Your task to perform on an android device: View the shopping cart on amazon. Add "apple airpods" to the cart on amazon Image 0: 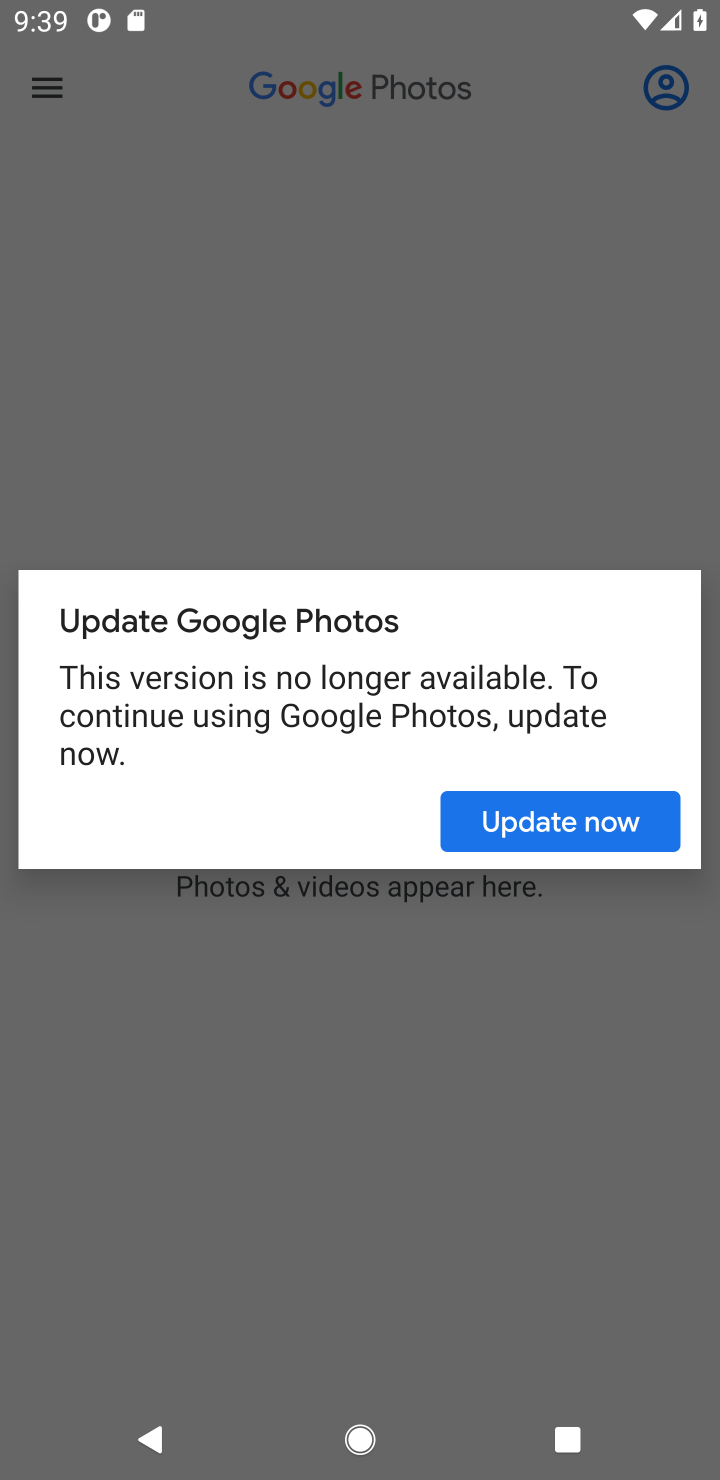
Step 0: press home button
Your task to perform on an android device: View the shopping cart on amazon. Add "apple airpods" to the cart on amazon Image 1: 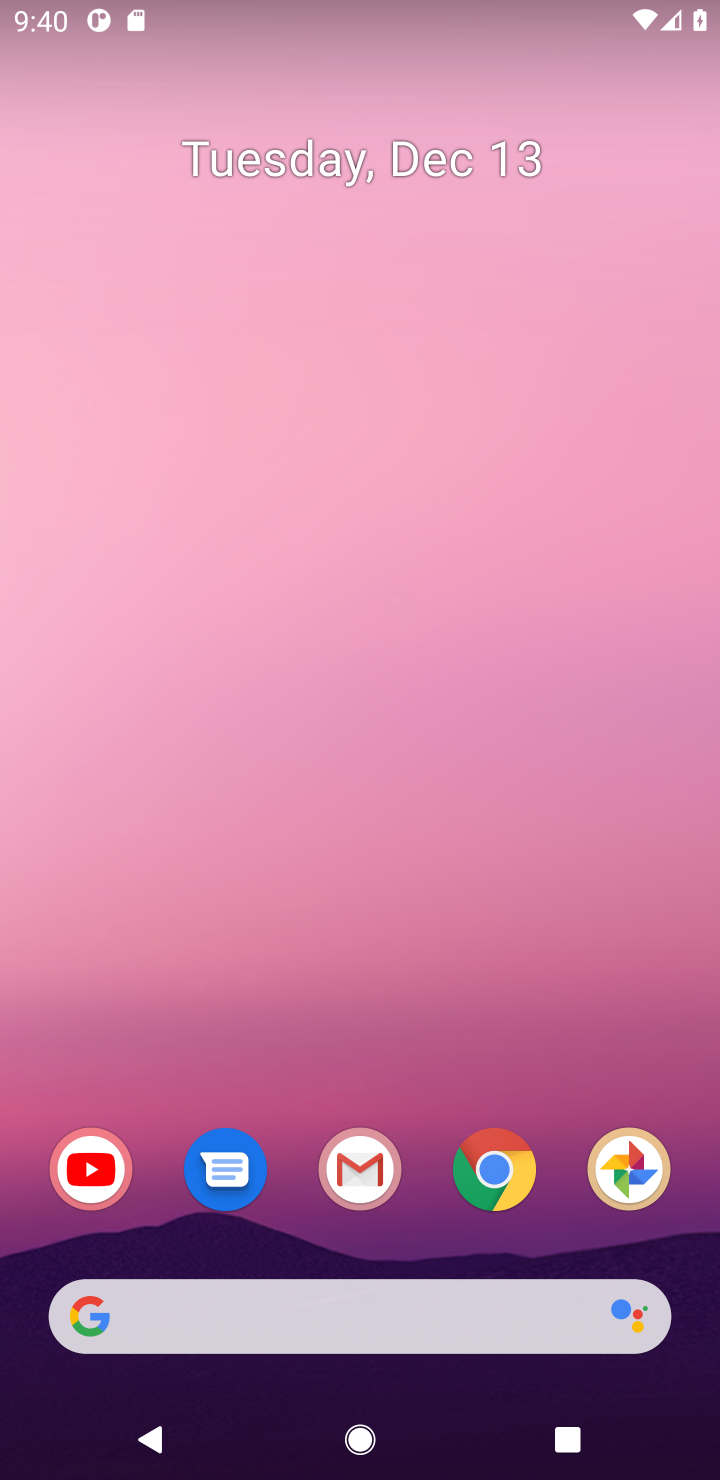
Step 1: click (508, 1175)
Your task to perform on an android device: View the shopping cart on amazon. Add "apple airpods" to the cart on amazon Image 2: 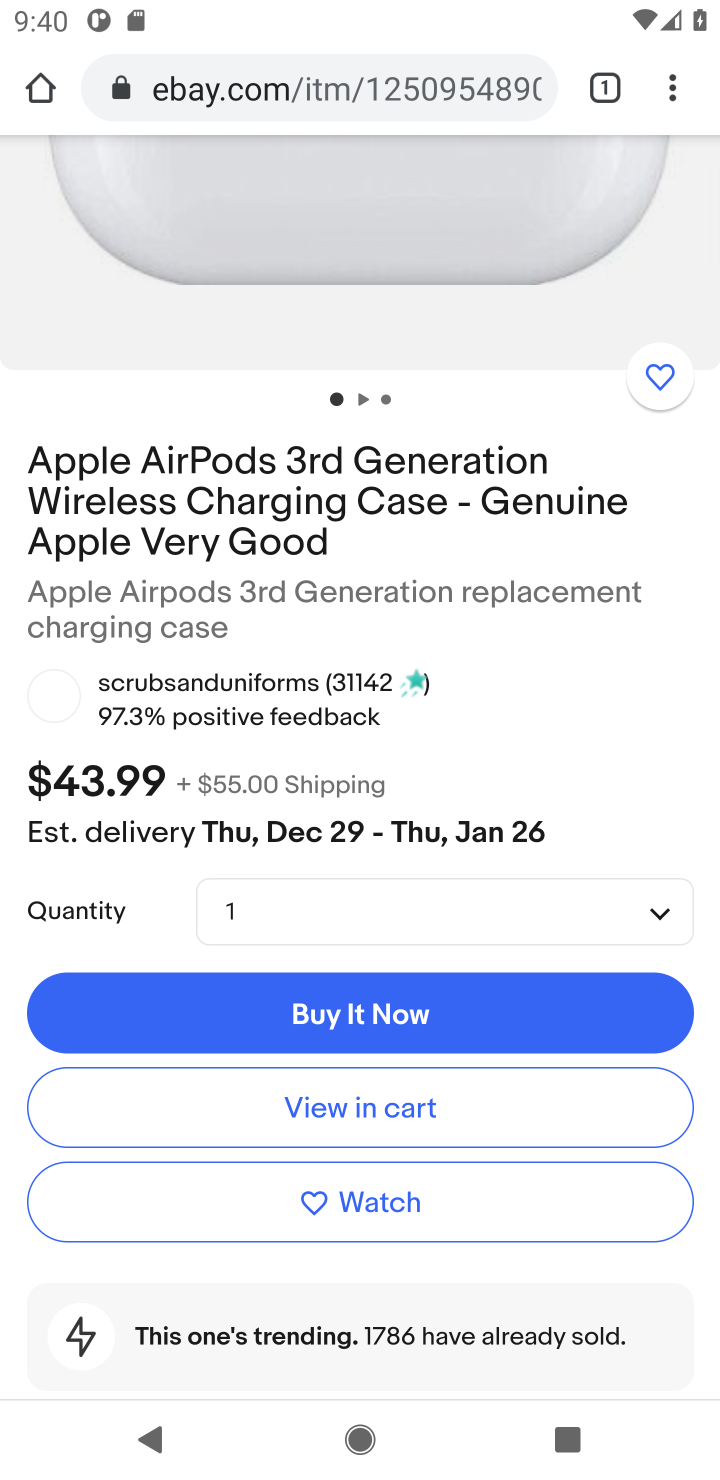
Step 2: click (310, 100)
Your task to perform on an android device: View the shopping cart on amazon. Add "apple airpods" to the cart on amazon Image 3: 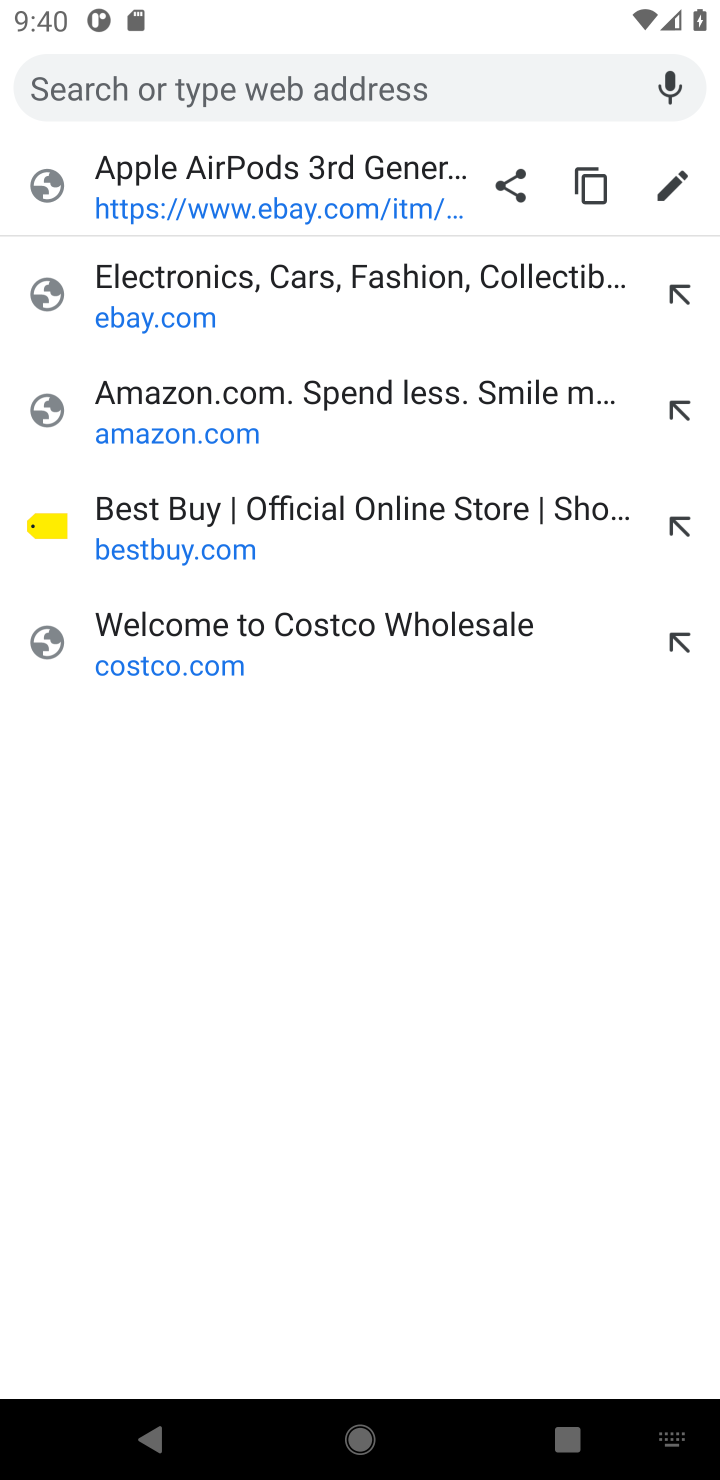
Step 3: click (335, 425)
Your task to perform on an android device: View the shopping cart on amazon. Add "apple airpods" to the cart on amazon Image 4: 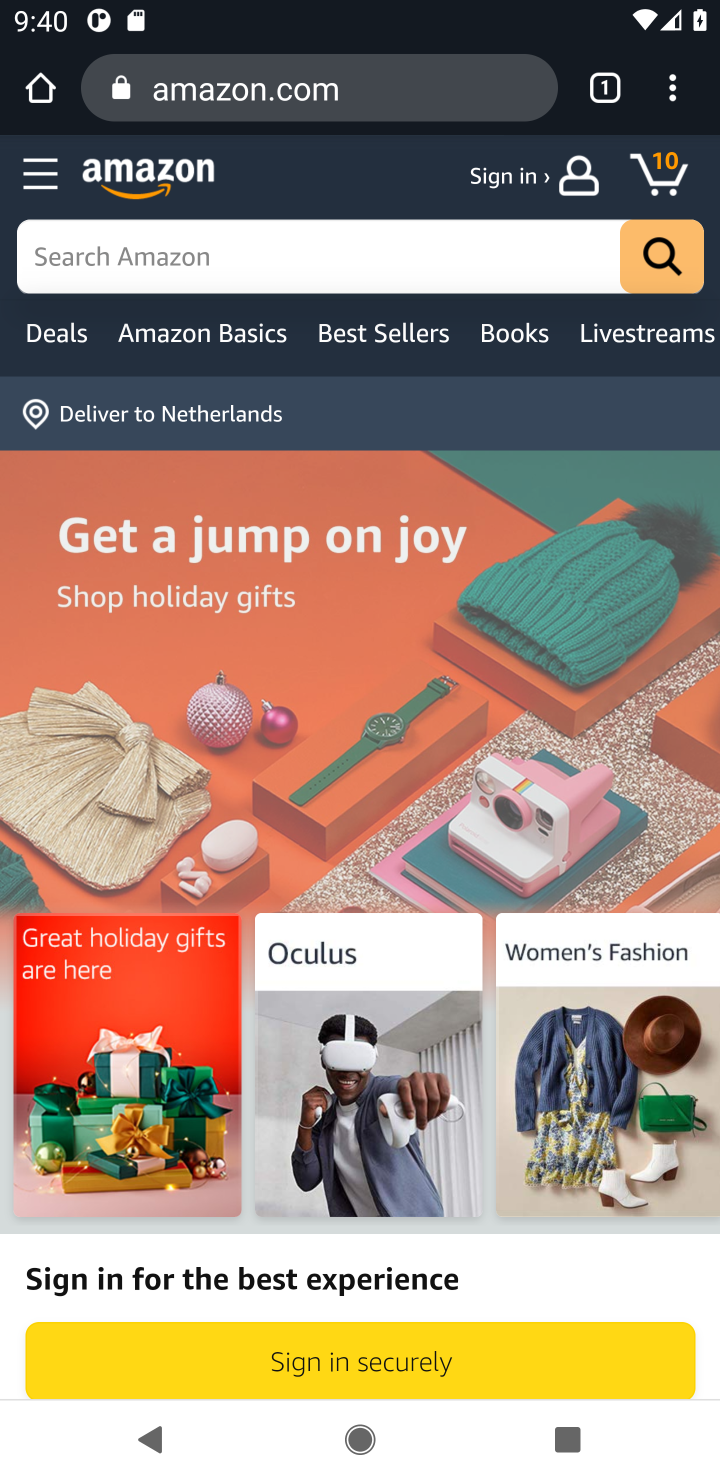
Step 4: click (102, 286)
Your task to perform on an android device: View the shopping cart on amazon. Add "apple airpods" to the cart on amazon Image 5: 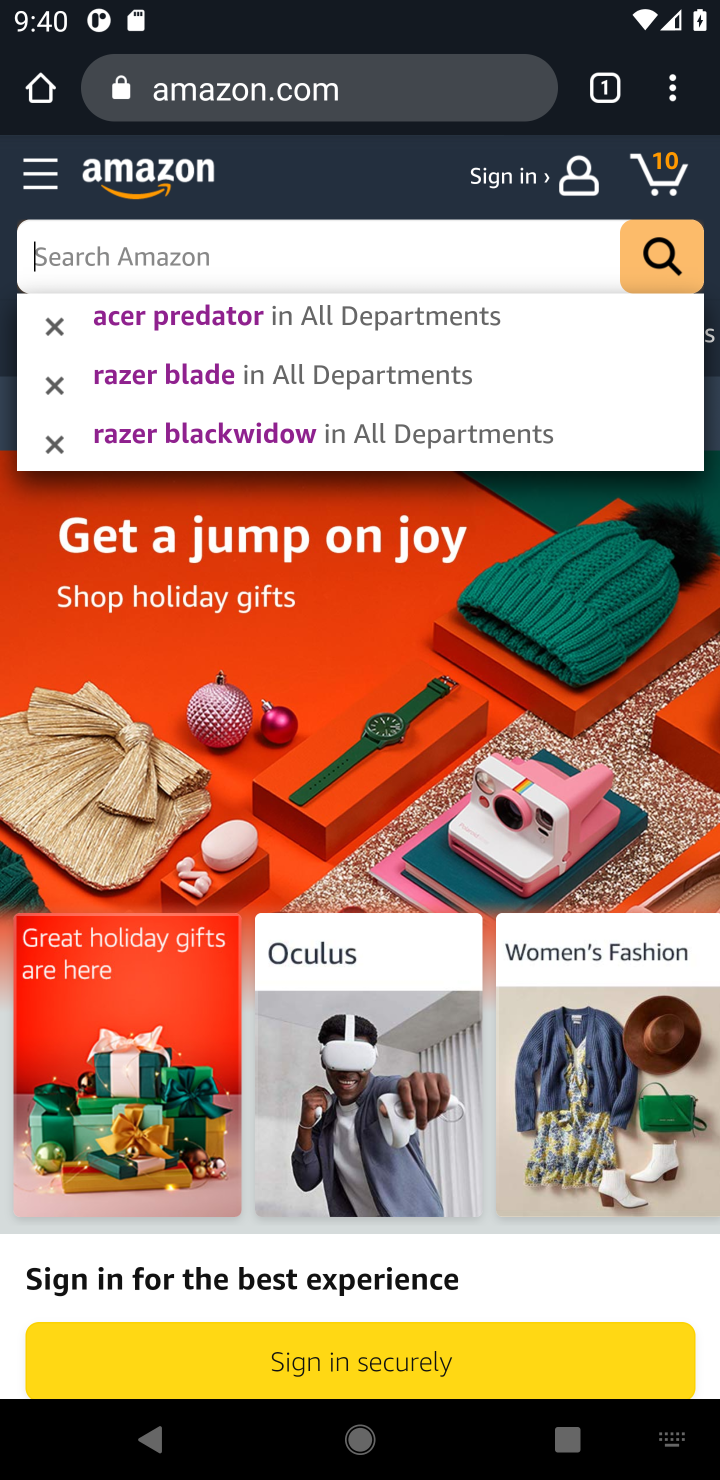
Step 5: type "apple airpod"
Your task to perform on an android device: View the shopping cart on amazon. Add "apple airpods" to the cart on amazon Image 6: 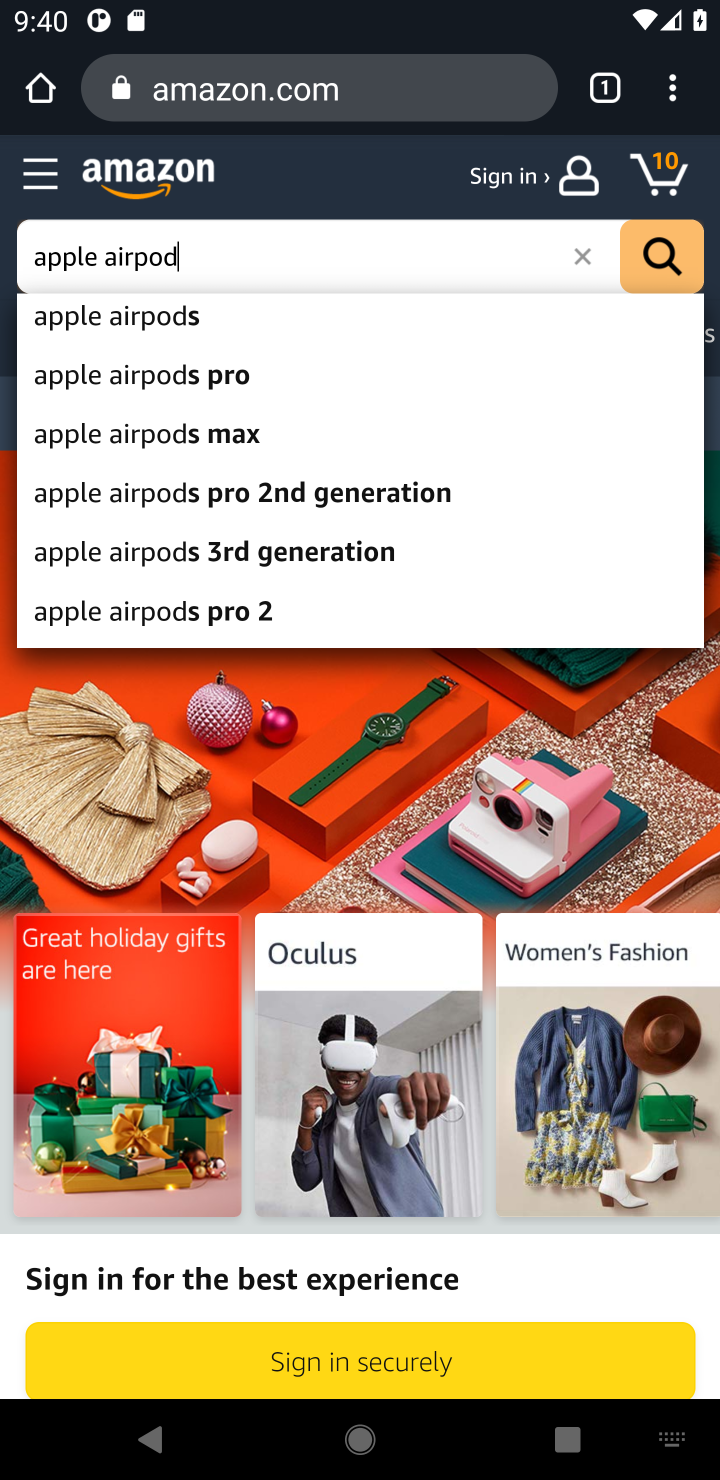
Step 6: click (648, 266)
Your task to perform on an android device: View the shopping cart on amazon. Add "apple airpods" to the cart on amazon Image 7: 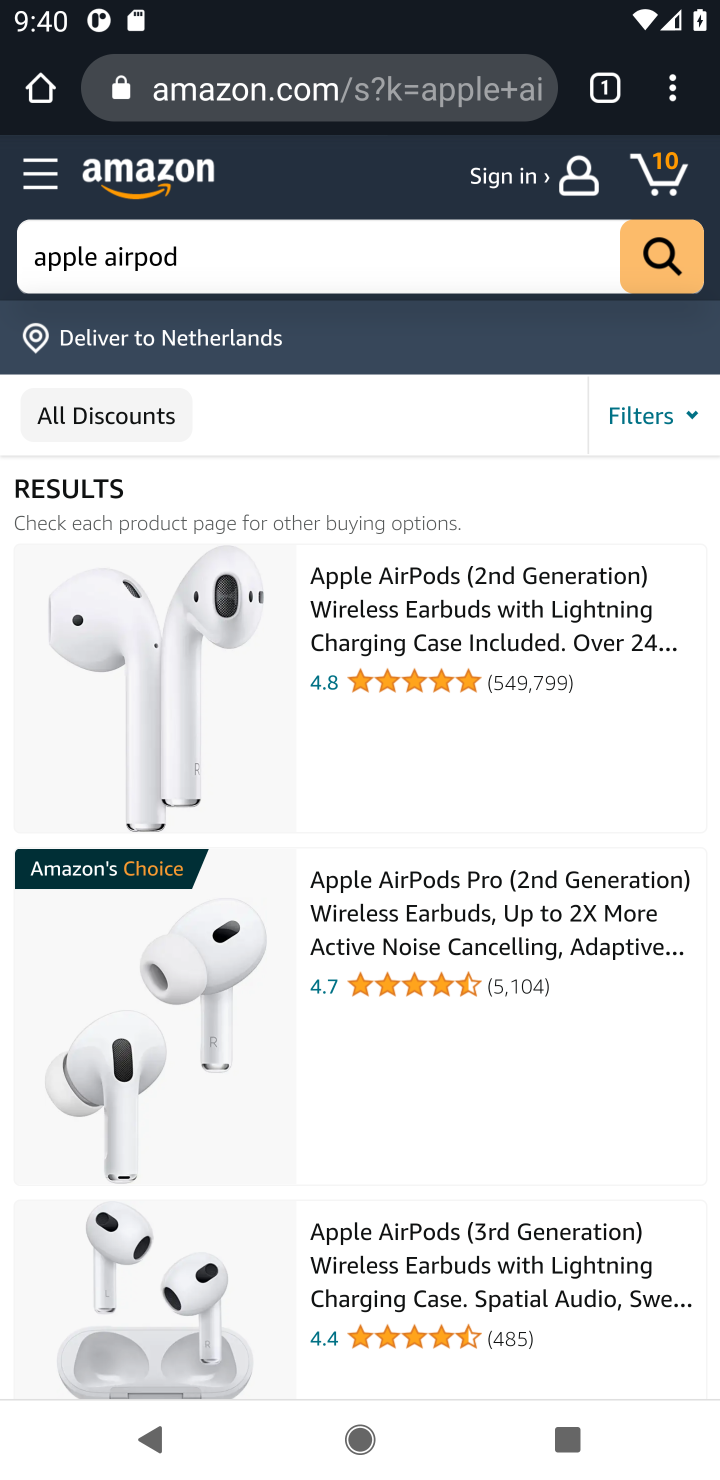
Step 7: click (492, 589)
Your task to perform on an android device: View the shopping cart on amazon. Add "apple airpods" to the cart on amazon Image 8: 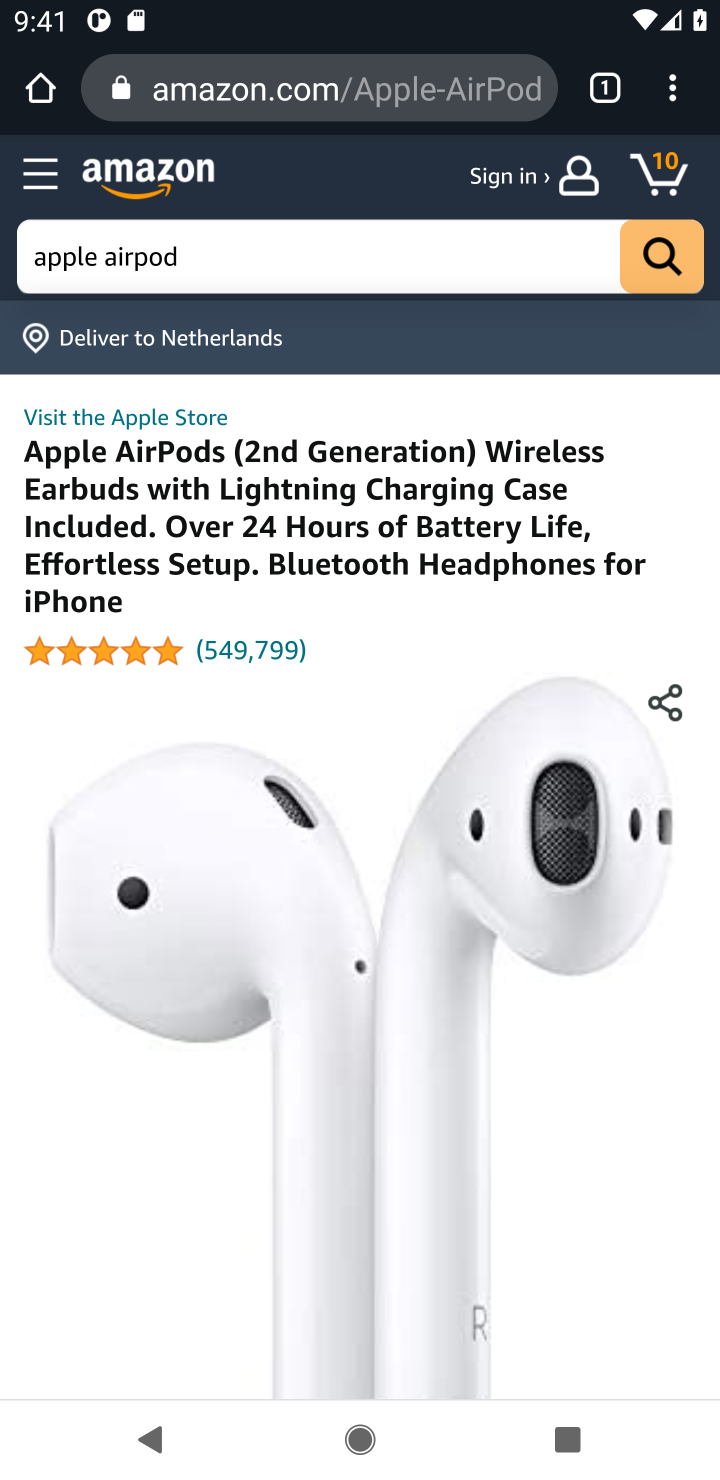
Step 8: drag from (493, 1124) to (472, 238)
Your task to perform on an android device: View the shopping cart on amazon. Add "apple airpods" to the cart on amazon Image 9: 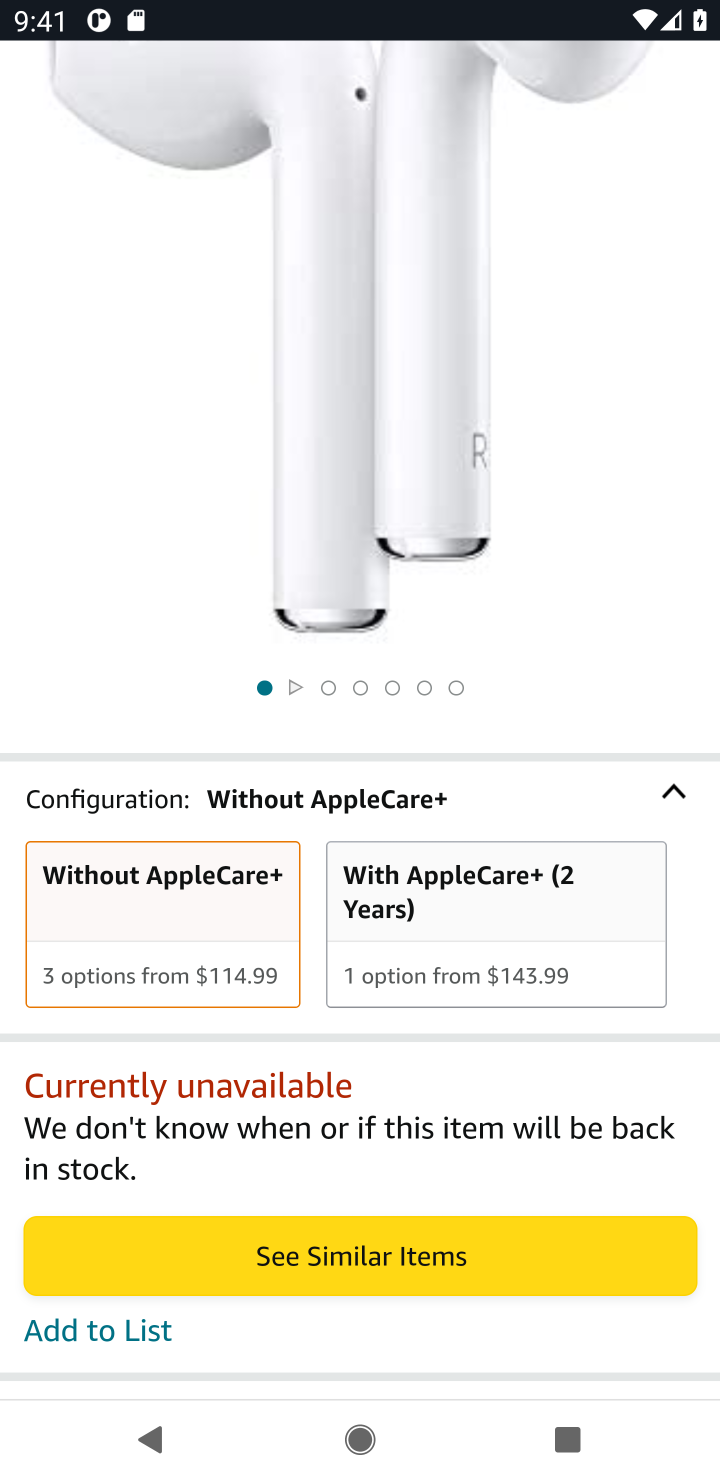
Step 9: click (455, 1255)
Your task to perform on an android device: View the shopping cart on amazon. Add "apple airpods" to the cart on amazon Image 10: 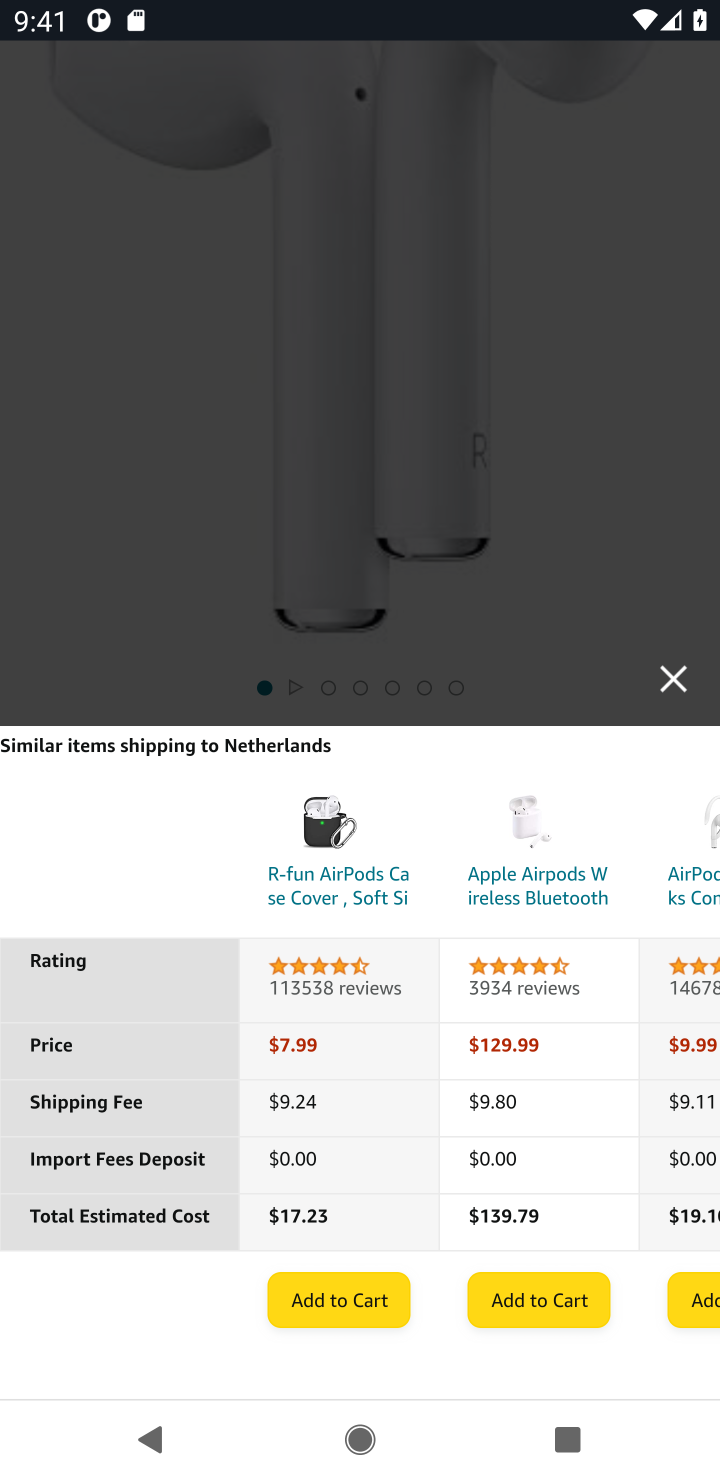
Step 10: click (344, 1324)
Your task to perform on an android device: View the shopping cart on amazon. Add "apple airpods" to the cart on amazon Image 11: 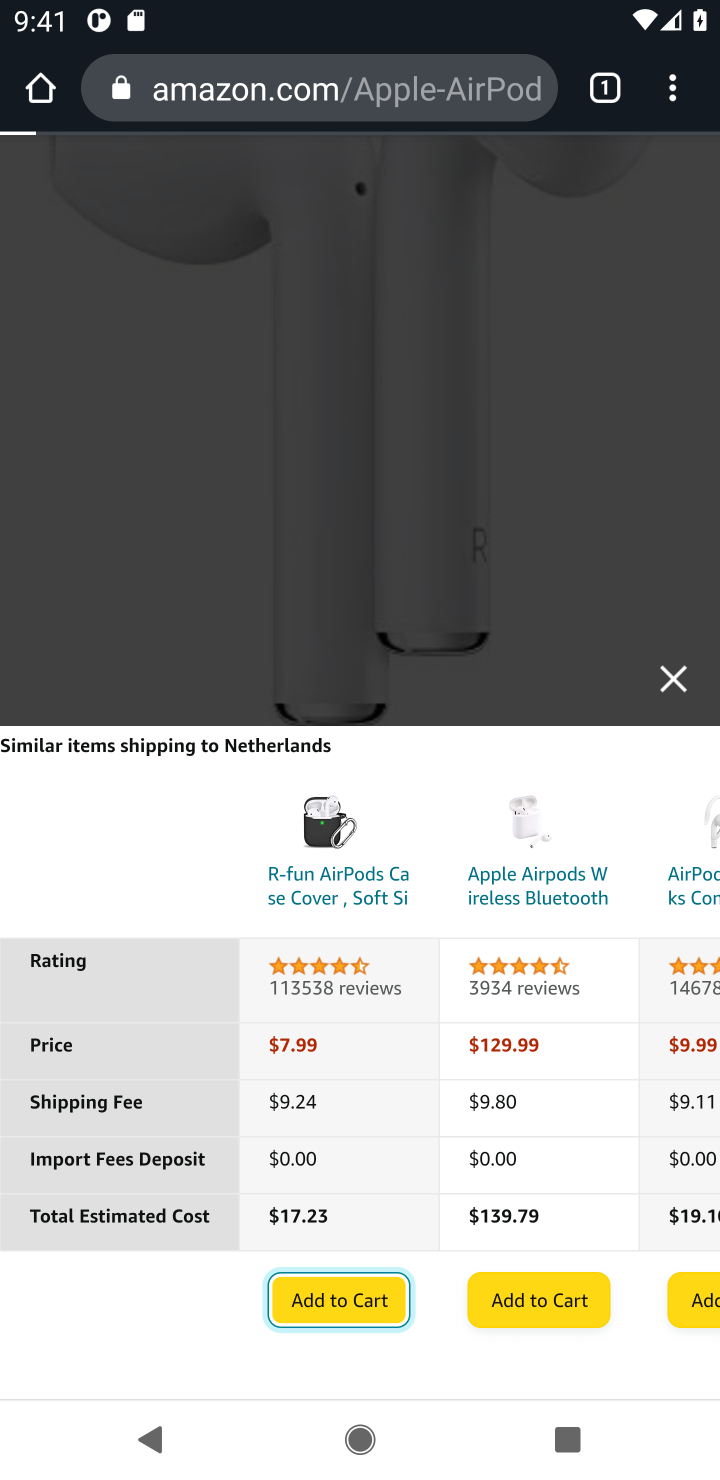
Step 11: task complete